Your task to perform on an android device: Show me recent news Image 0: 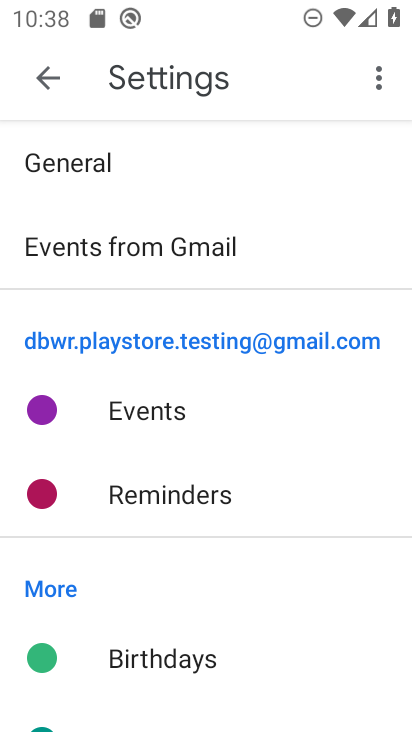
Step 0: press home button
Your task to perform on an android device: Show me recent news Image 1: 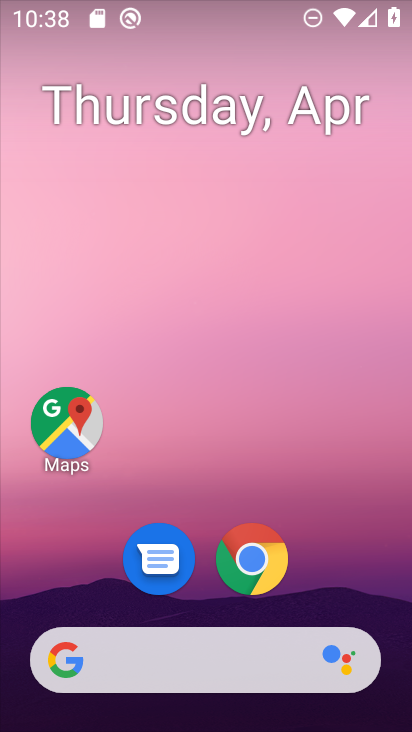
Step 1: drag from (250, 678) to (291, 135)
Your task to perform on an android device: Show me recent news Image 2: 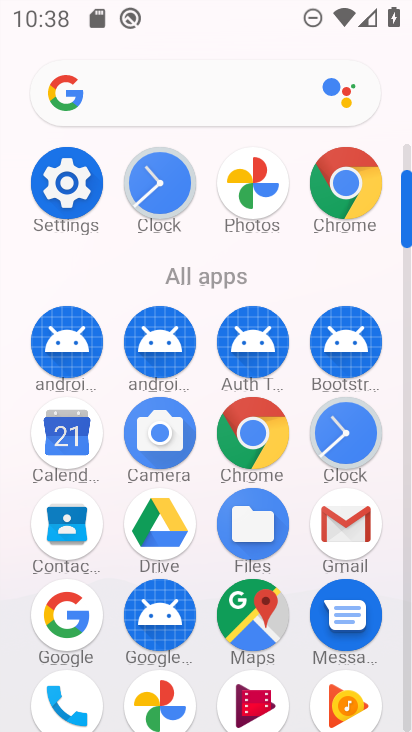
Step 2: click (176, 113)
Your task to perform on an android device: Show me recent news Image 3: 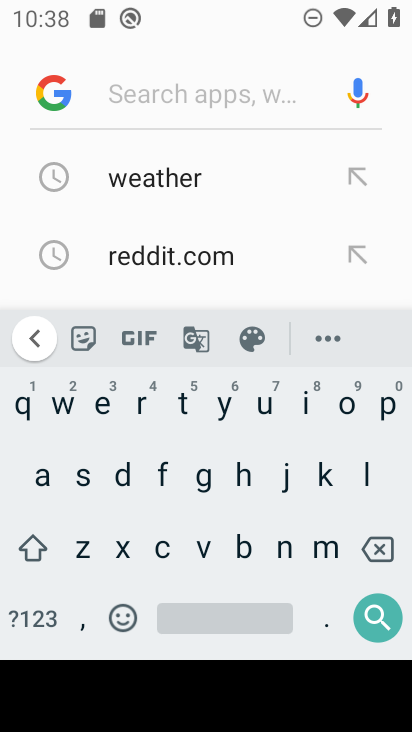
Step 3: click (140, 401)
Your task to perform on an android device: Show me recent news Image 4: 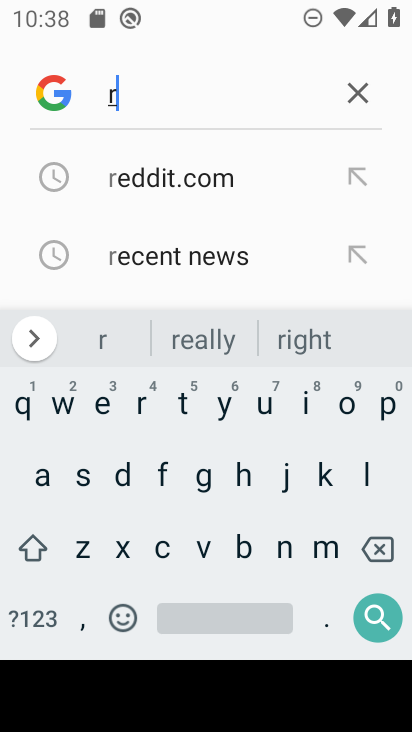
Step 4: click (159, 264)
Your task to perform on an android device: Show me recent news Image 5: 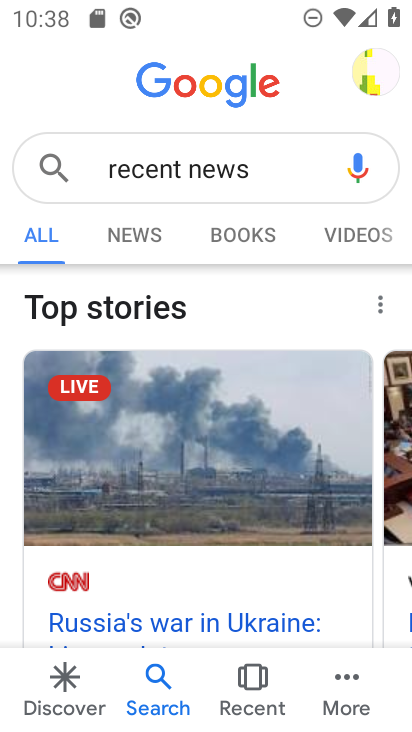
Step 5: task complete